Your task to perform on an android device: Search for "alienware aurora" on walmart, select the first entry, add it to the cart, then select checkout. Image 0: 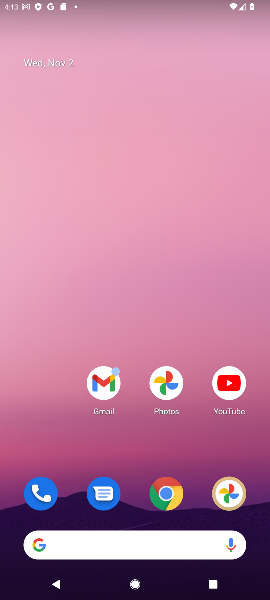
Step 0: drag from (132, 521) to (142, 251)
Your task to perform on an android device: Search for "alienware aurora" on walmart, select the first entry, add it to the cart, then select checkout. Image 1: 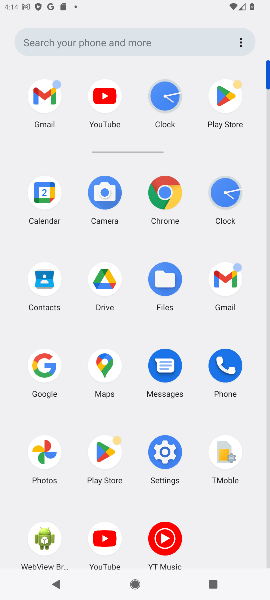
Step 1: click (49, 365)
Your task to perform on an android device: Search for "alienware aurora" on walmart, select the first entry, add it to the cart, then select checkout. Image 2: 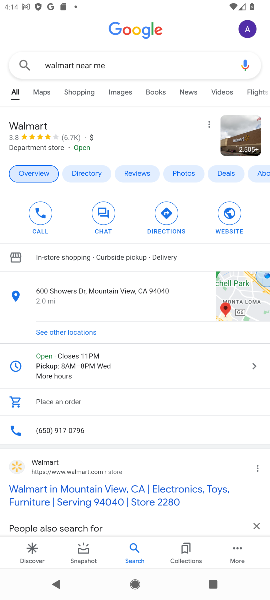
Step 2: click (117, 59)
Your task to perform on an android device: Search for "alienware aurora" on walmart, select the first entry, add it to the cart, then select checkout. Image 3: 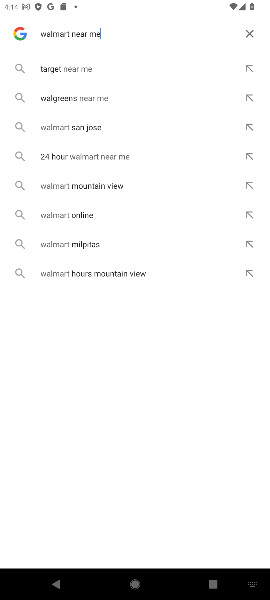
Step 3: click (244, 28)
Your task to perform on an android device: Search for "alienware aurora" on walmart, select the first entry, add it to the cart, then select checkout. Image 4: 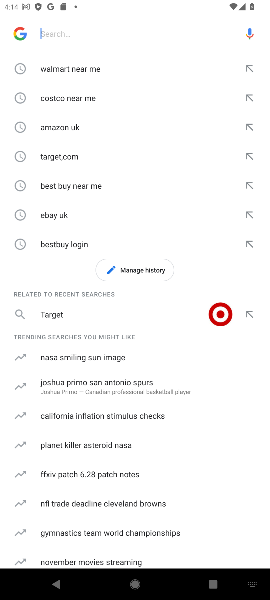
Step 4: click (71, 66)
Your task to perform on an android device: Search for "alienware aurora" on walmart, select the first entry, add it to the cart, then select checkout. Image 5: 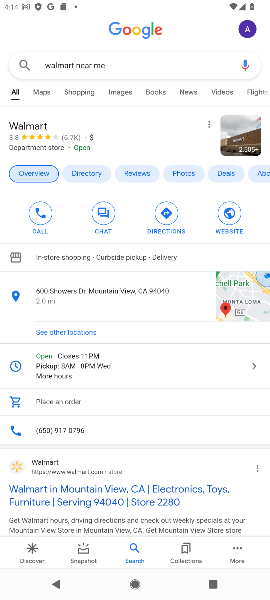
Step 5: drag from (116, 433) to (135, 254)
Your task to perform on an android device: Search for "alienware aurora" on walmart, select the first entry, add it to the cart, then select checkout. Image 6: 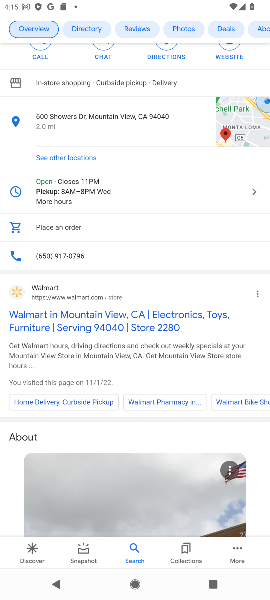
Step 6: click (16, 299)
Your task to perform on an android device: Search for "alienware aurora" on walmart, select the first entry, add it to the cart, then select checkout. Image 7: 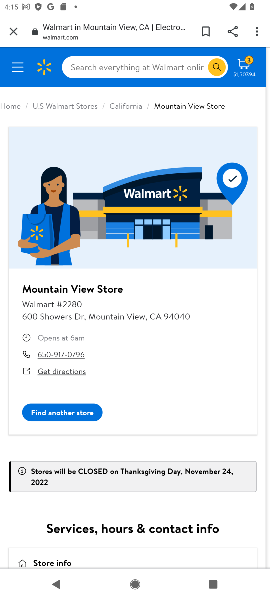
Step 7: drag from (155, 473) to (148, 529)
Your task to perform on an android device: Search for "alienware aurora" on walmart, select the first entry, add it to the cart, then select checkout. Image 8: 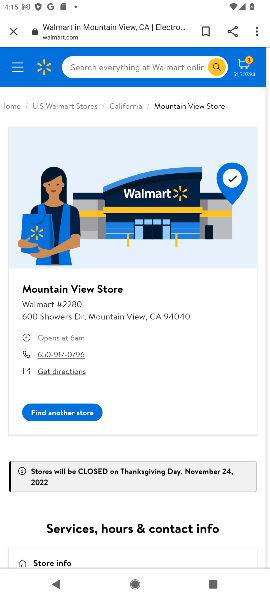
Step 8: click (126, 62)
Your task to perform on an android device: Search for "alienware aurora" on walmart, select the first entry, add it to the cart, then select checkout. Image 9: 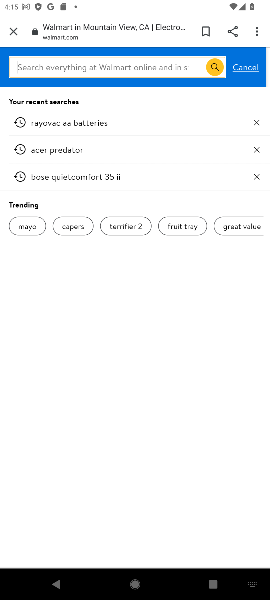
Step 9: type "alienware aurora "
Your task to perform on an android device: Search for "alienware aurora" on walmart, select the first entry, add it to the cart, then select checkout. Image 10: 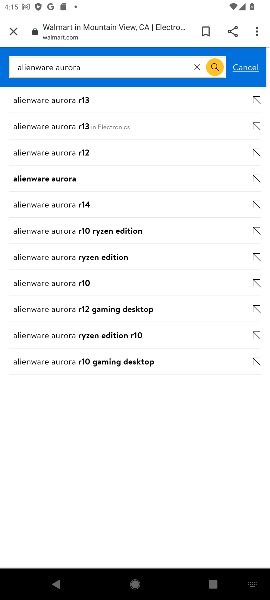
Step 10: click (82, 98)
Your task to perform on an android device: Search for "alienware aurora" on walmart, select the first entry, add it to the cart, then select checkout. Image 11: 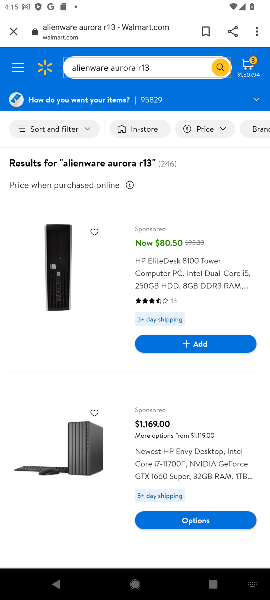
Step 11: drag from (159, 478) to (184, 360)
Your task to perform on an android device: Search for "alienware aurora" on walmart, select the first entry, add it to the cart, then select checkout. Image 12: 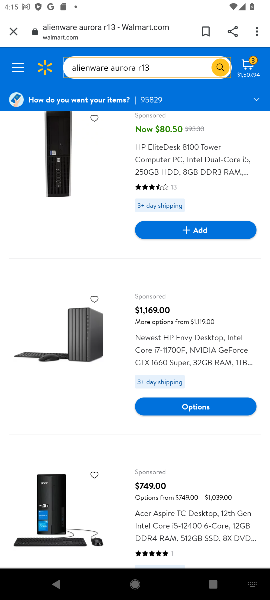
Step 12: drag from (151, 512) to (156, 357)
Your task to perform on an android device: Search for "alienware aurora" on walmart, select the first entry, add it to the cart, then select checkout. Image 13: 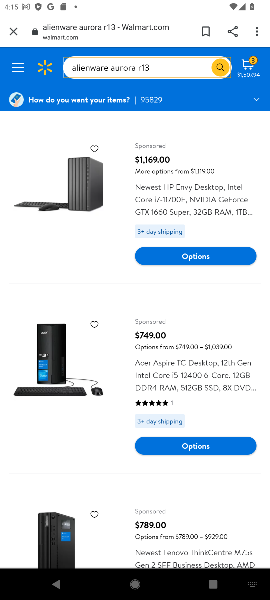
Step 13: click (161, 258)
Your task to perform on an android device: Search for "alienware aurora" on walmart, select the first entry, add it to the cart, then select checkout. Image 14: 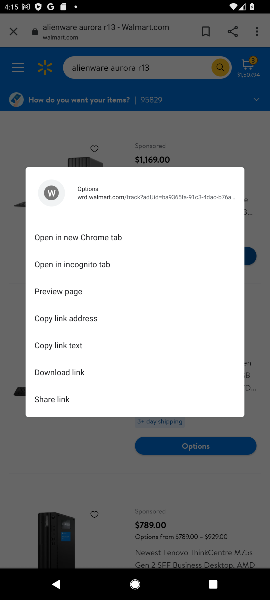
Step 14: click (183, 137)
Your task to perform on an android device: Search for "alienware aurora" on walmart, select the first entry, add it to the cart, then select checkout. Image 15: 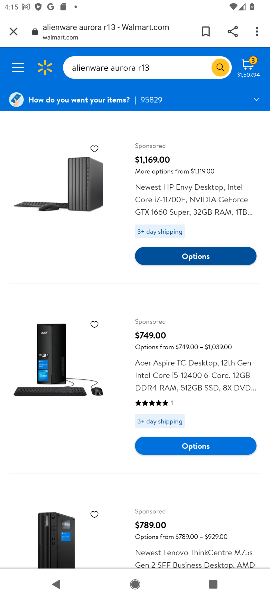
Step 15: drag from (183, 137) to (178, 531)
Your task to perform on an android device: Search for "alienware aurora" on walmart, select the first entry, add it to the cart, then select checkout. Image 16: 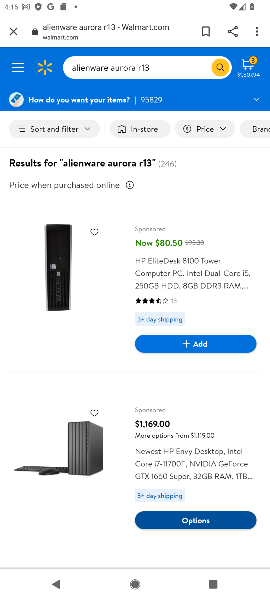
Step 16: click (160, 253)
Your task to perform on an android device: Search for "alienware aurora" on walmart, select the first entry, add it to the cart, then select checkout. Image 17: 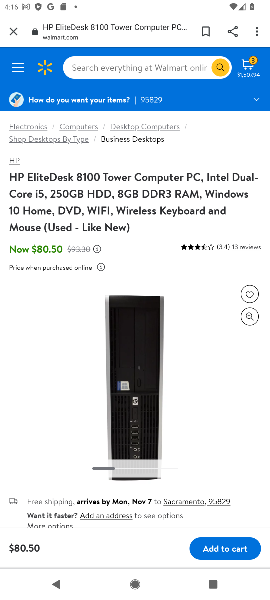
Step 17: click (236, 547)
Your task to perform on an android device: Search for "alienware aurora" on walmart, select the first entry, add it to the cart, then select checkout. Image 18: 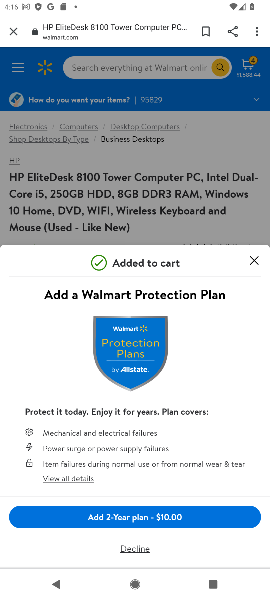
Step 18: task complete